Your task to perform on an android device: Go to privacy settings Image 0: 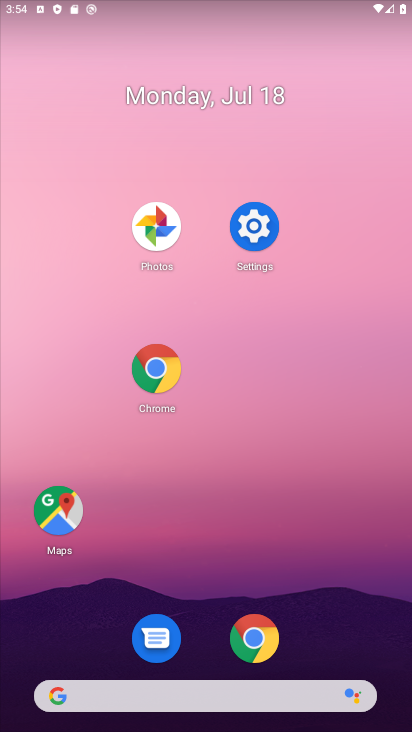
Step 0: click (268, 217)
Your task to perform on an android device: Go to privacy settings Image 1: 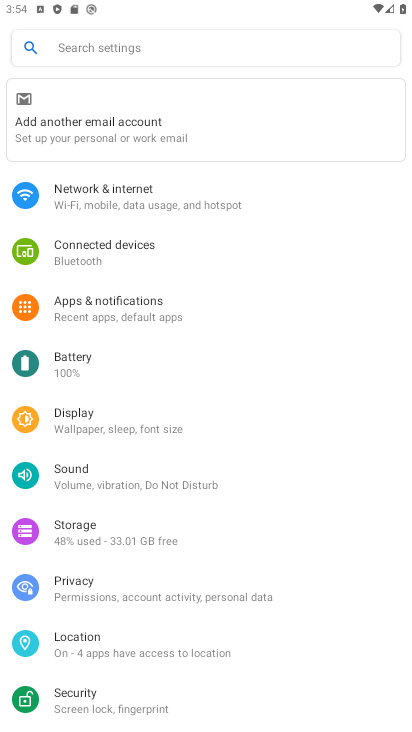
Step 1: click (170, 588)
Your task to perform on an android device: Go to privacy settings Image 2: 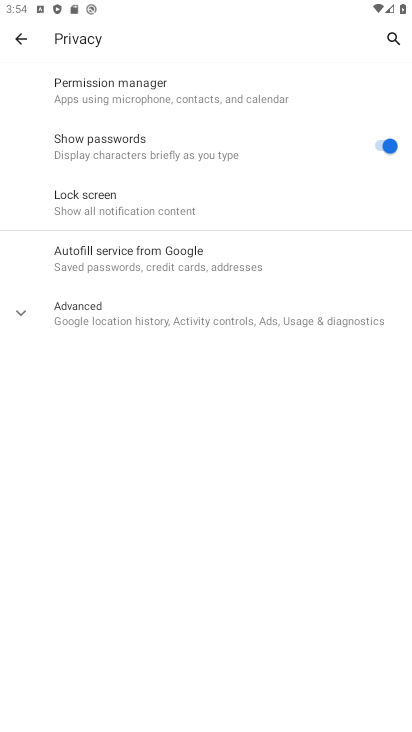
Step 2: task complete